Your task to perform on an android device: open device folders in google photos Image 0: 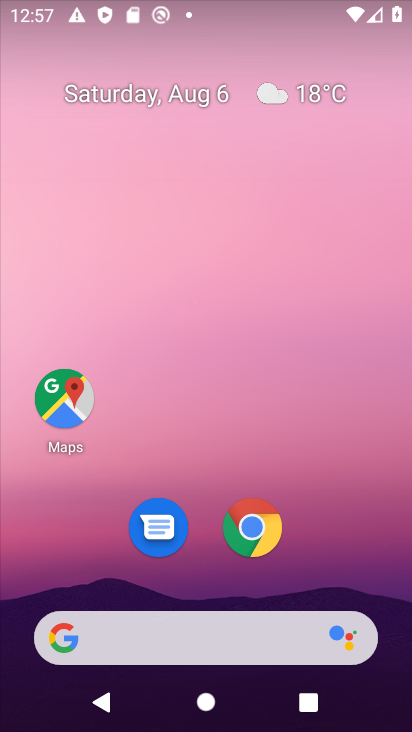
Step 0: drag from (236, 500) to (321, 113)
Your task to perform on an android device: open device folders in google photos Image 1: 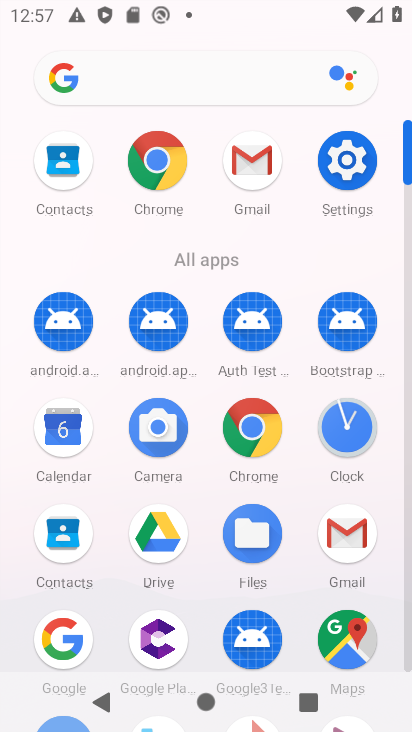
Step 1: drag from (195, 265) to (206, 59)
Your task to perform on an android device: open device folders in google photos Image 2: 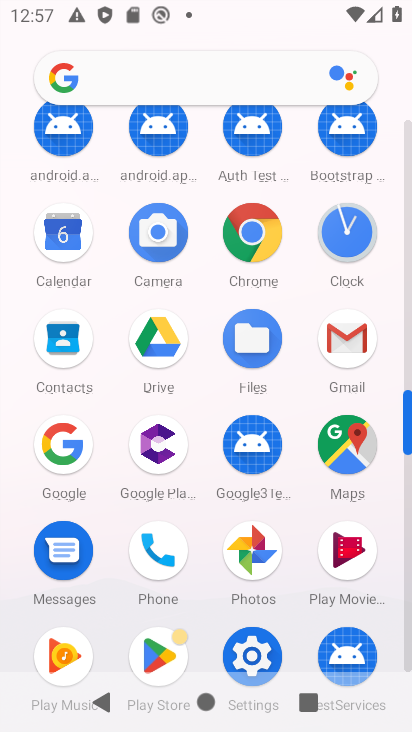
Step 2: click (254, 550)
Your task to perform on an android device: open device folders in google photos Image 3: 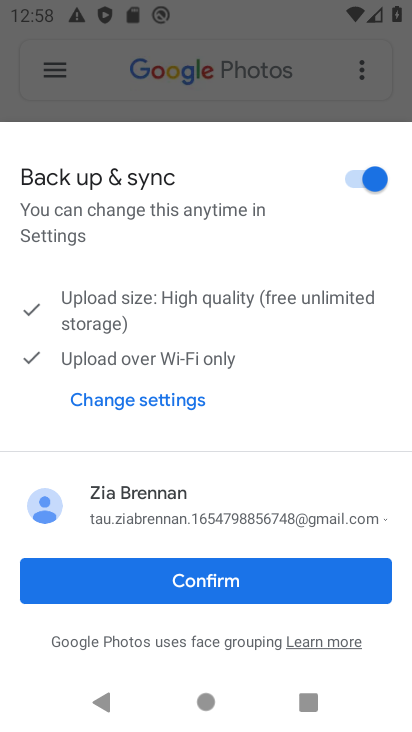
Step 3: click (211, 590)
Your task to perform on an android device: open device folders in google photos Image 4: 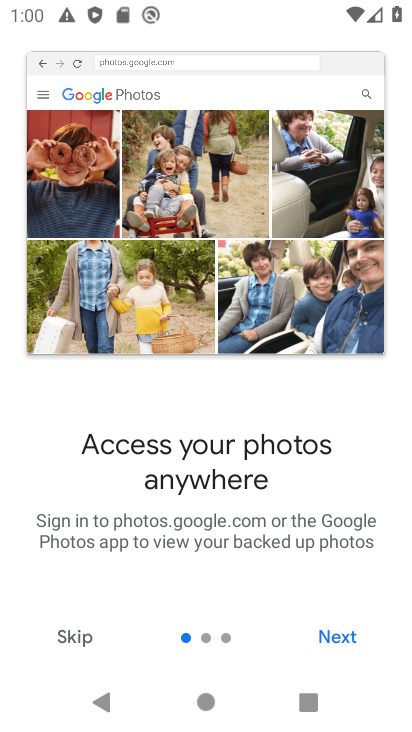
Step 4: click (80, 649)
Your task to perform on an android device: open device folders in google photos Image 5: 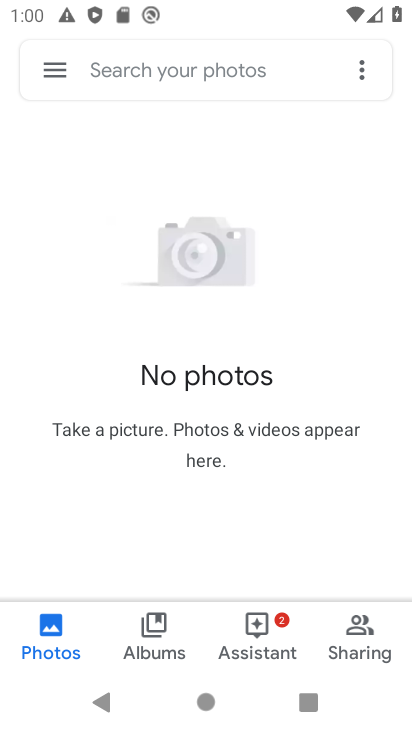
Step 5: click (69, 66)
Your task to perform on an android device: open device folders in google photos Image 6: 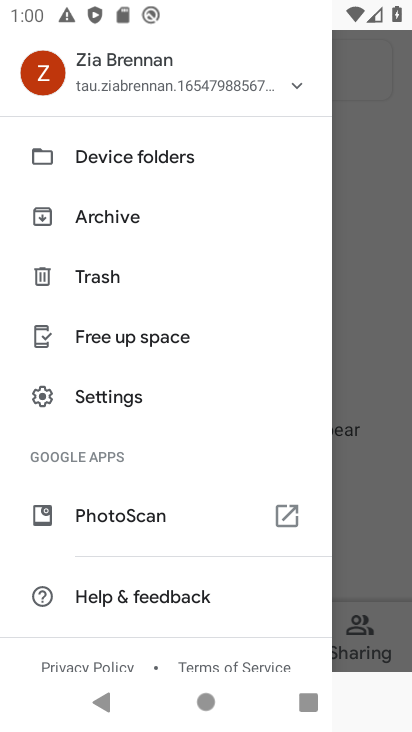
Step 6: click (168, 154)
Your task to perform on an android device: open device folders in google photos Image 7: 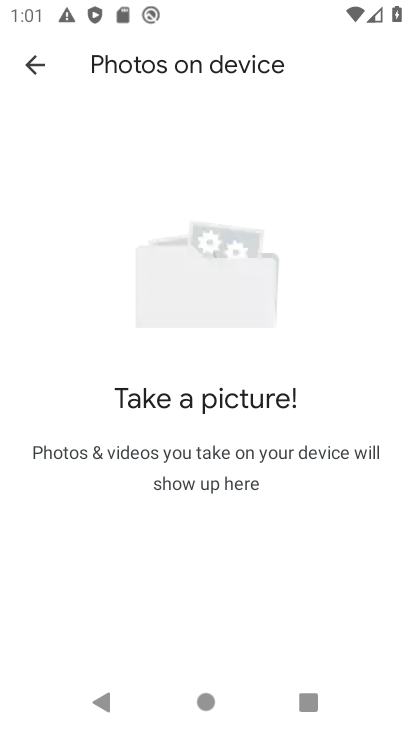
Step 7: task complete